Your task to perform on an android device: toggle improve location accuracy Image 0: 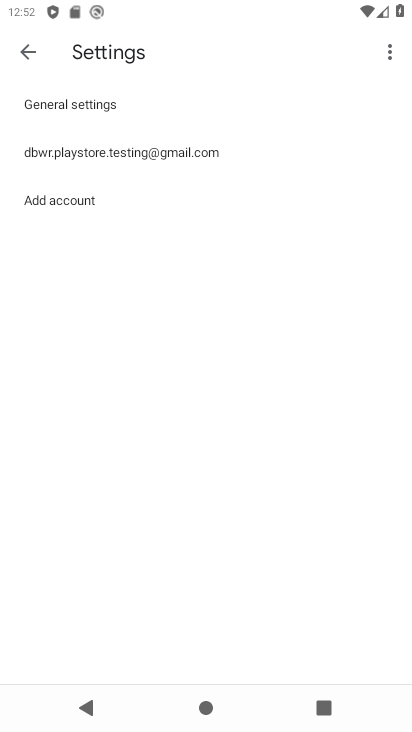
Step 0: press back button
Your task to perform on an android device: toggle improve location accuracy Image 1: 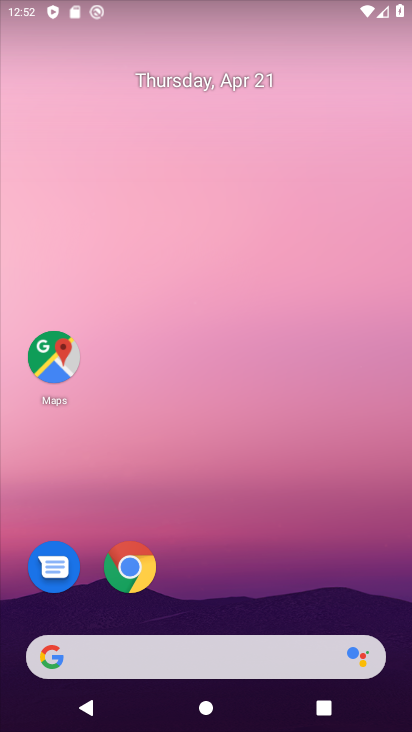
Step 1: drag from (249, 542) to (276, 78)
Your task to perform on an android device: toggle improve location accuracy Image 2: 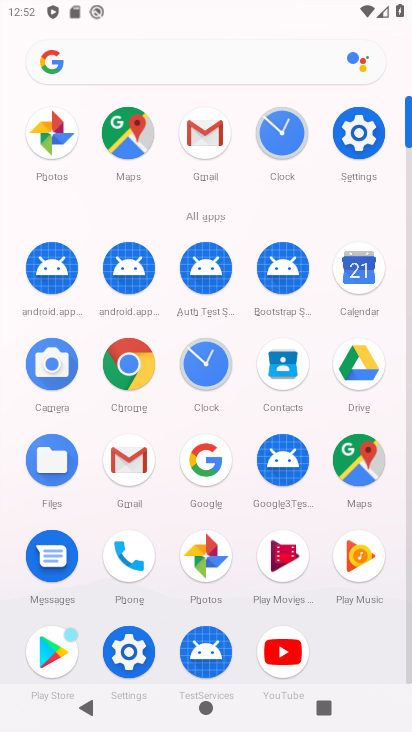
Step 2: click (350, 140)
Your task to perform on an android device: toggle improve location accuracy Image 3: 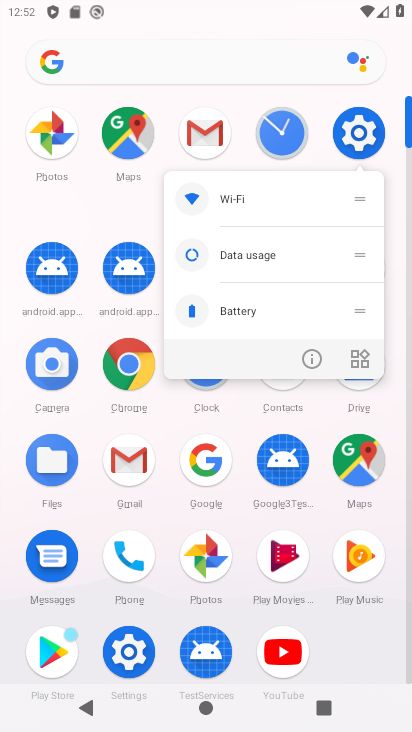
Step 3: click (364, 130)
Your task to perform on an android device: toggle improve location accuracy Image 4: 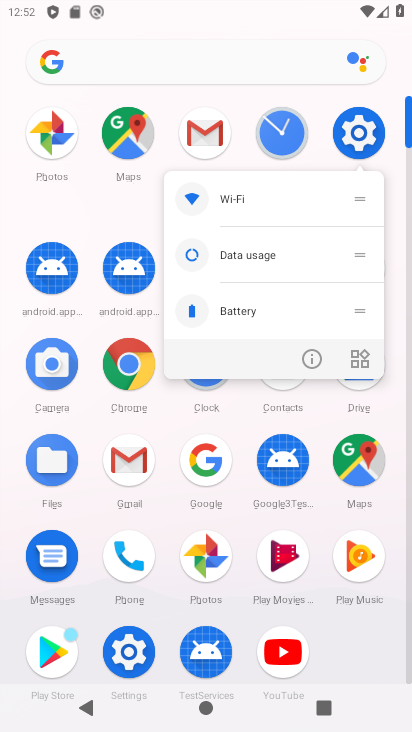
Step 4: click (360, 135)
Your task to perform on an android device: toggle improve location accuracy Image 5: 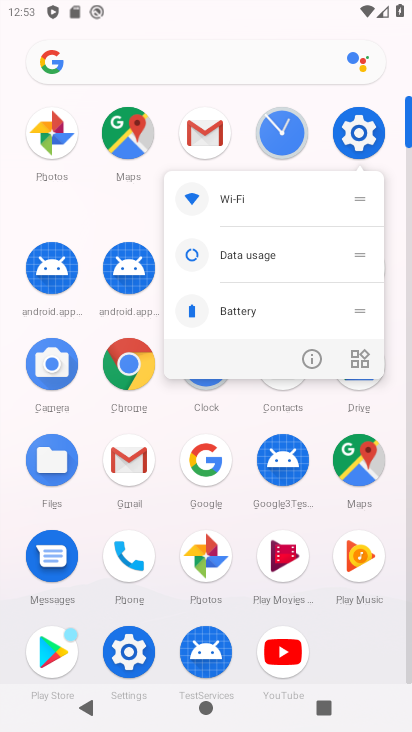
Step 5: click (376, 118)
Your task to perform on an android device: toggle improve location accuracy Image 6: 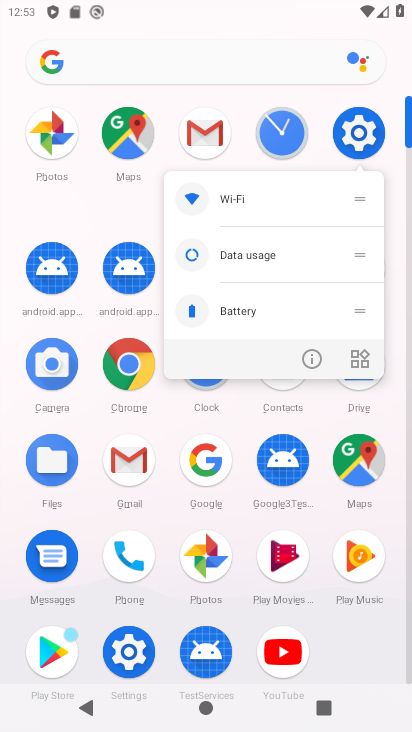
Step 6: click (366, 143)
Your task to perform on an android device: toggle improve location accuracy Image 7: 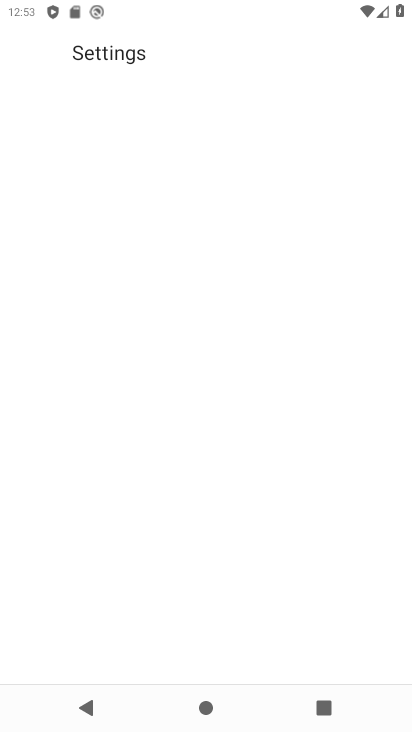
Step 7: click (353, 133)
Your task to perform on an android device: toggle improve location accuracy Image 8: 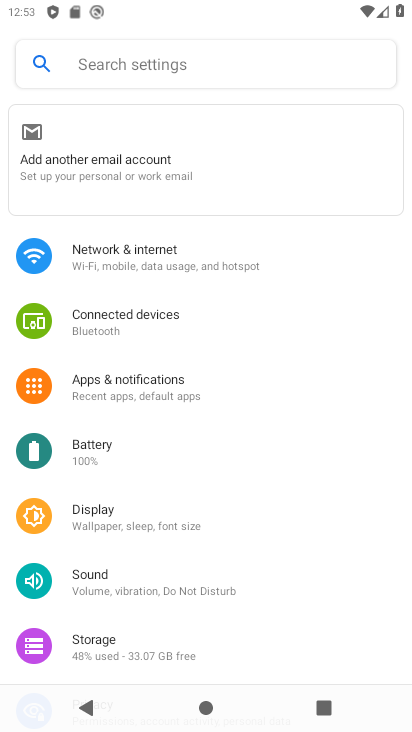
Step 8: drag from (145, 622) to (192, 186)
Your task to perform on an android device: toggle improve location accuracy Image 9: 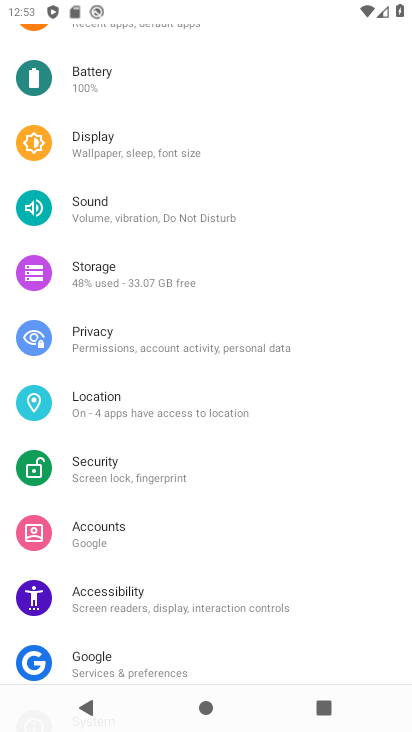
Step 9: click (135, 399)
Your task to perform on an android device: toggle improve location accuracy Image 10: 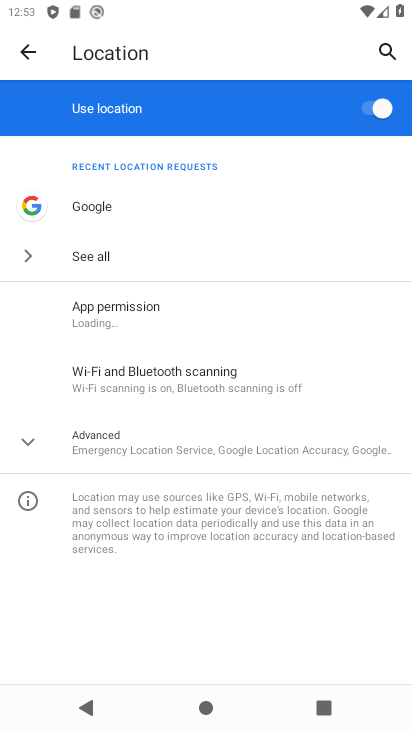
Step 10: click (136, 449)
Your task to perform on an android device: toggle improve location accuracy Image 11: 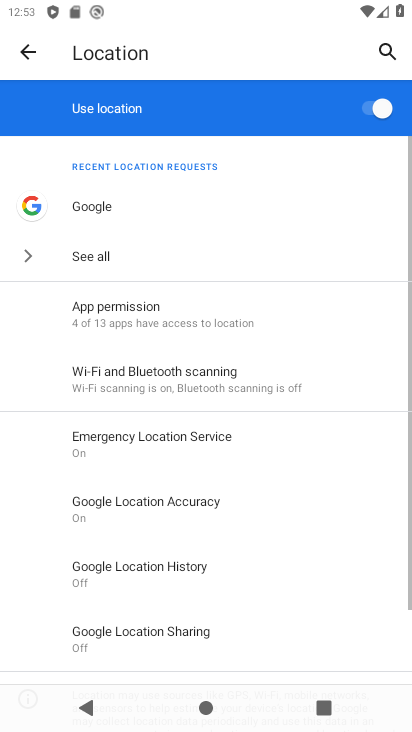
Step 11: click (170, 509)
Your task to perform on an android device: toggle improve location accuracy Image 12: 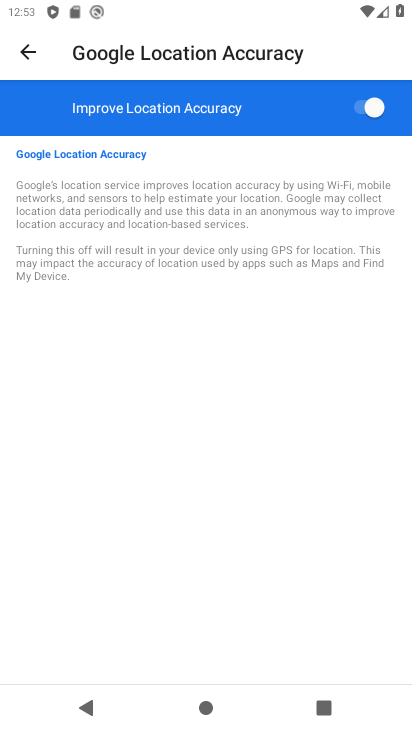
Step 12: click (376, 108)
Your task to perform on an android device: toggle improve location accuracy Image 13: 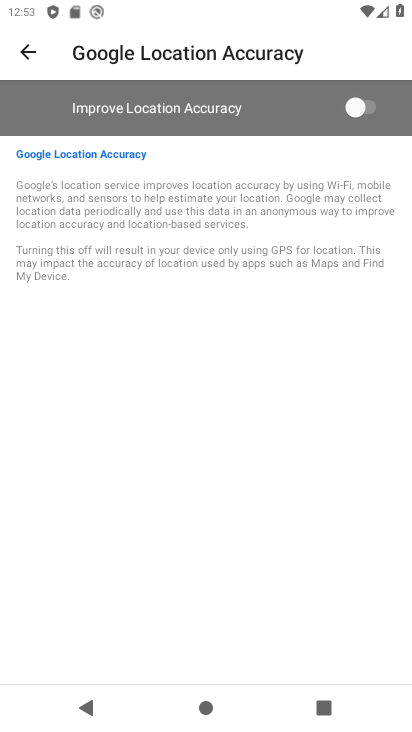
Step 13: task complete